Your task to perform on an android device: Search for sushi restaurants on Maps Image 0: 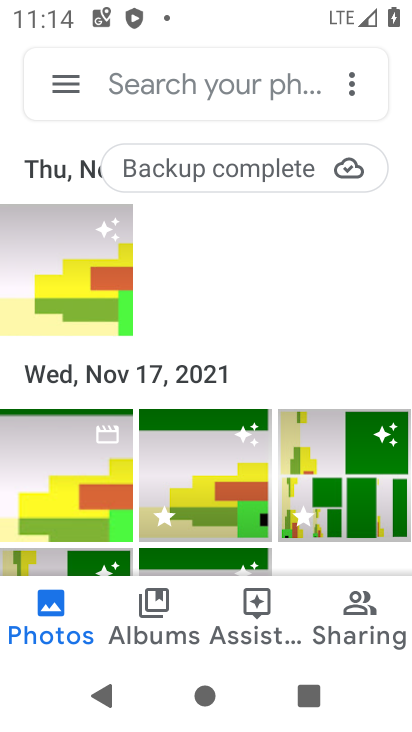
Step 0: press home button
Your task to perform on an android device: Search for sushi restaurants on Maps Image 1: 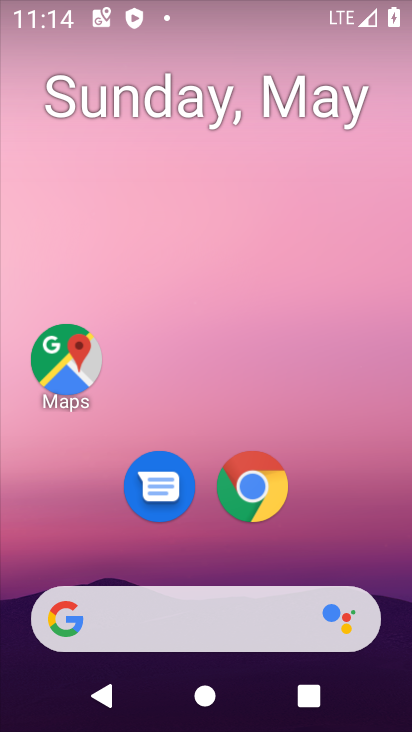
Step 1: drag from (202, 561) to (236, 121)
Your task to perform on an android device: Search for sushi restaurants on Maps Image 2: 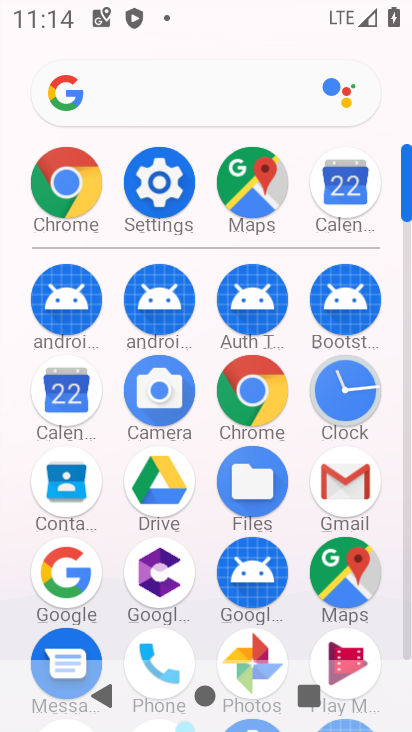
Step 2: click (244, 179)
Your task to perform on an android device: Search for sushi restaurants on Maps Image 3: 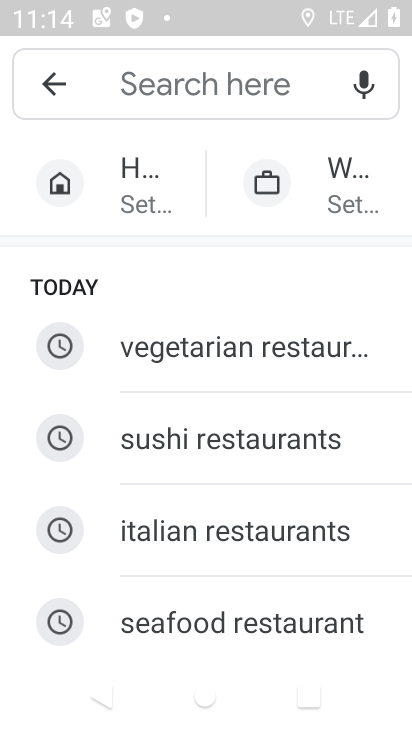
Step 3: click (202, 440)
Your task to perform on an android device: Search for sushi restaurants on Maps Image 4: 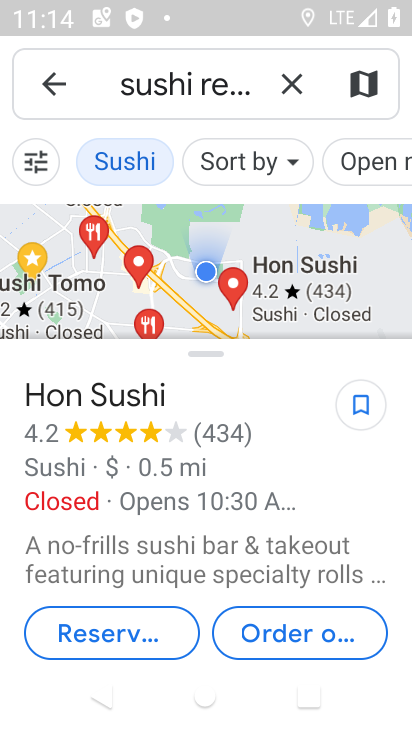
Step 4: task complete